Your task to perform on an android device: turn on the 12-hour format for clock Image 0: 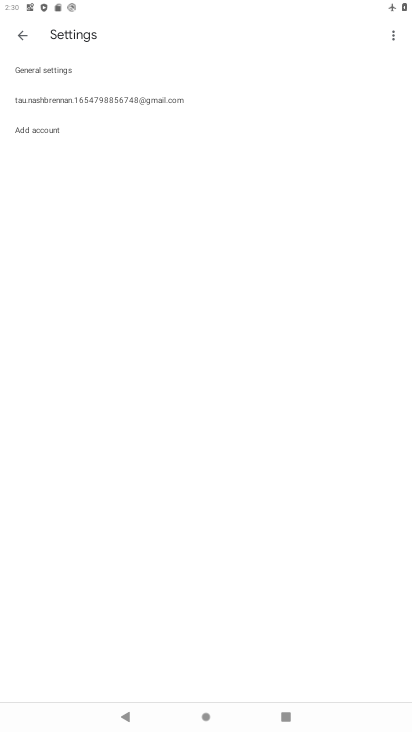
Step 0: press home button
Your task to perform on an android device: turn on the 12-hour format for clock Image 1: 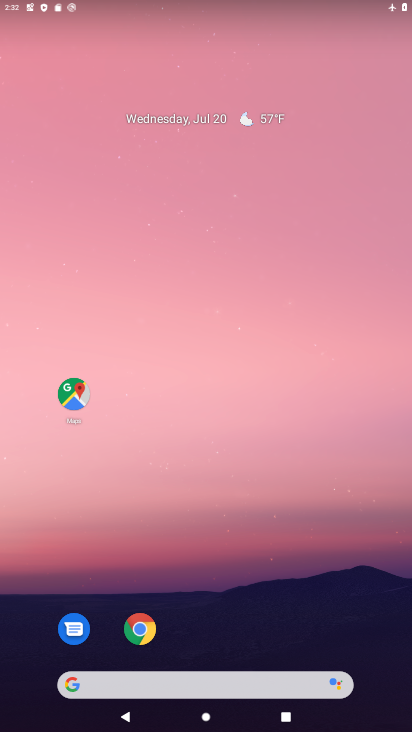
Step 1: drag from (219, 620) to (215, 83)
Your task to perform on an android device: turn on the 12-hour format for clock Image 2: 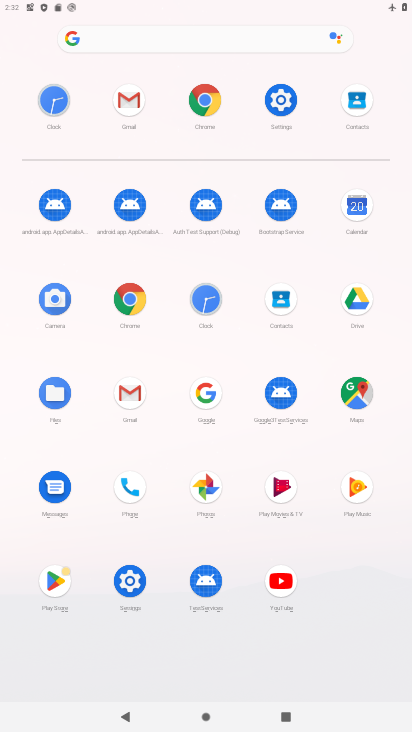
Step 2: click (209, 294)
Your task to perform on an android device: turn on the 12-hour format for clock Image 3: 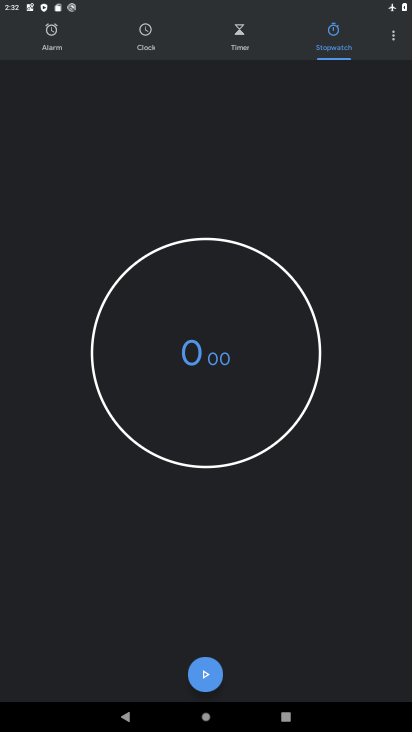
Step 3: click (401, 43)
Your task to perform on an android device: turn on the 12-hour format for clock Image 4: 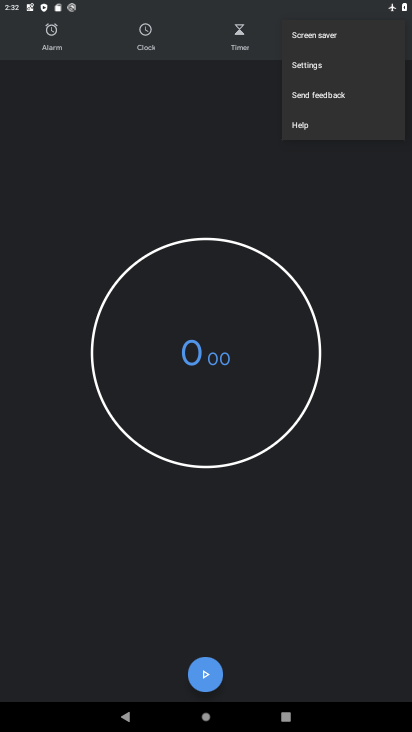
Step 4: click (340, 74)
Your task to perform on an android device: turn on the 12-hour format for clock Image 5: 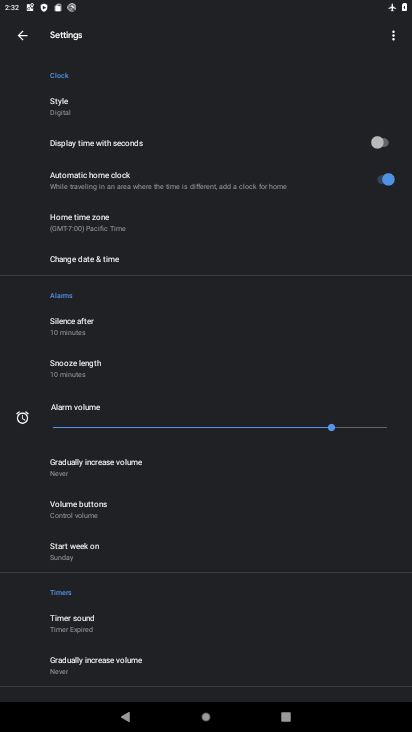
Step 5: click (165, 254)
Your task to perform on an android device: turn on the 12-hour format for clock Image 6: 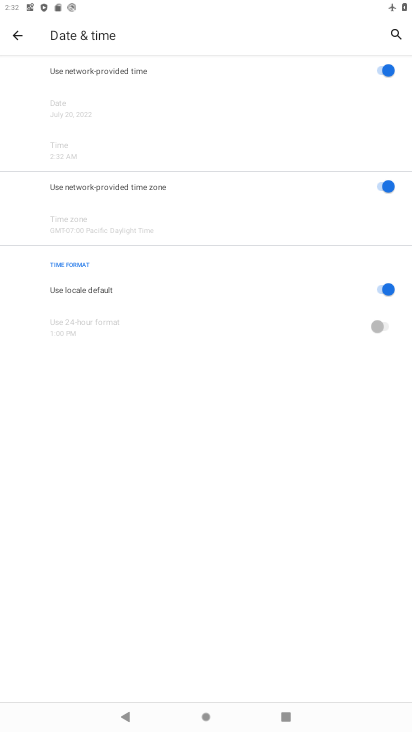
Step 6: task complete